Your task to perform on an android device: Open Chrome and go to settings Image 0: 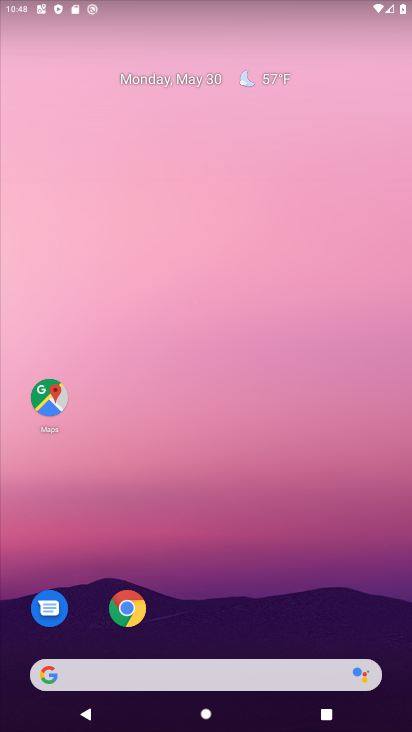
Step 0: drag from (265, 565) to (216, 35)
Your task to perform on an android device: Open Chrome and go to settings Image 1: 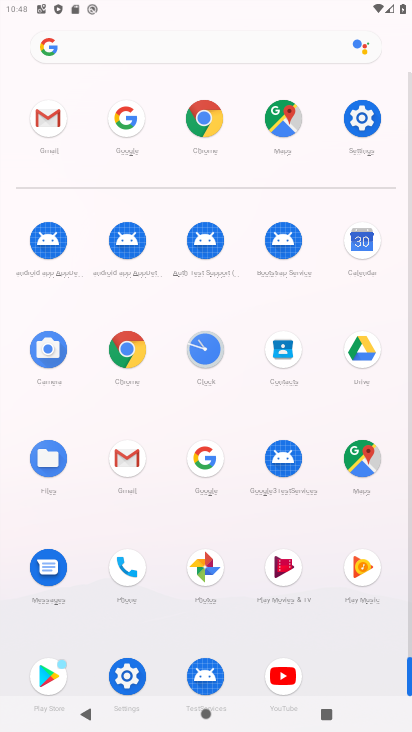
Step 1: drag from (8, 502) to (13, 215)
Your task to perform on an android device: Open Chrome and go to settings Image 2: 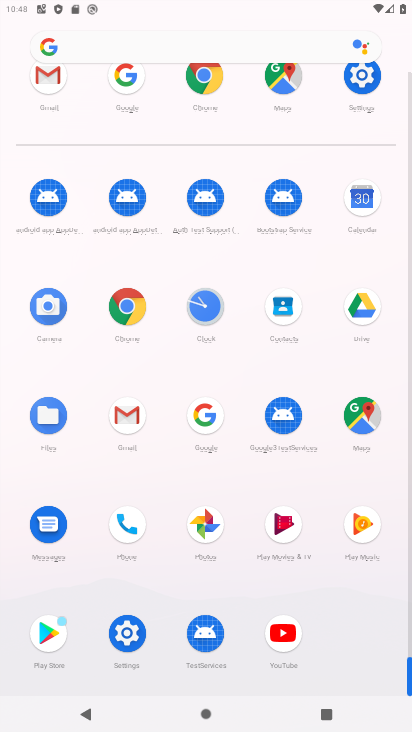
Step 2: click (130, 309)
Your task to perform on an android device: Open Chrome and go to settings Image 3: 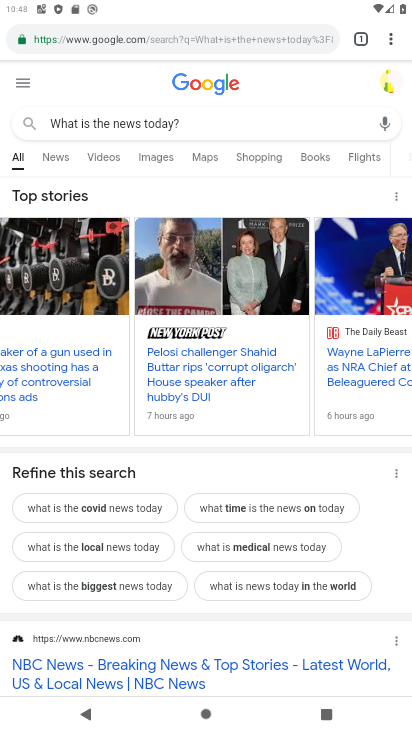
Step 3: task complete